Your task to perform on an android device: change notification settings in the gmail app Image 0: 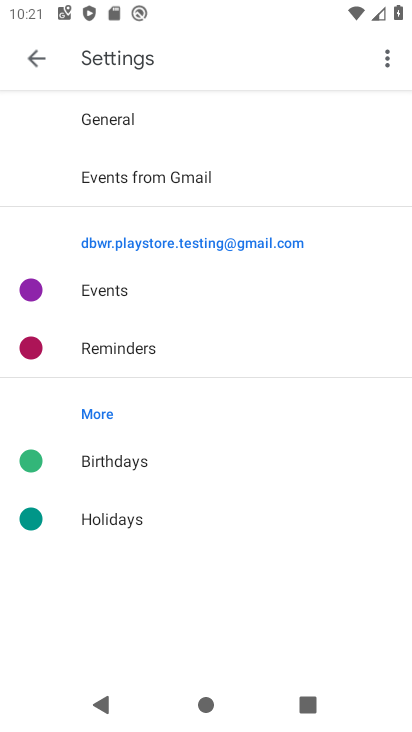
Step 0: press home button
Your task to perform on an android device: change notification settings in the gmail app Image 1: 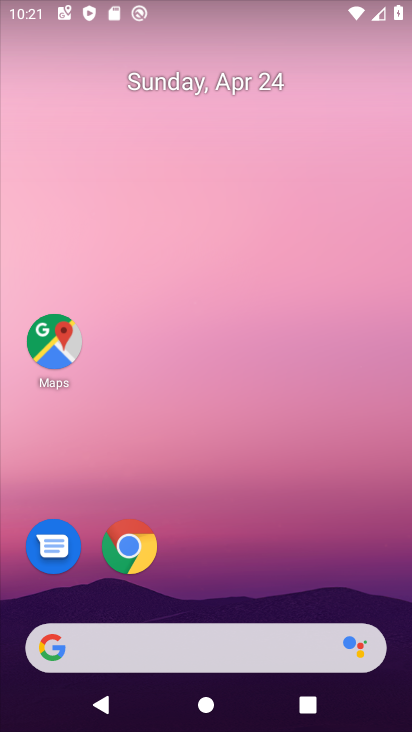
Step 1: drag from (348, 597) to (352, 5)
Your task to perform on an android device: change notification settings in the gmail app Image 2: 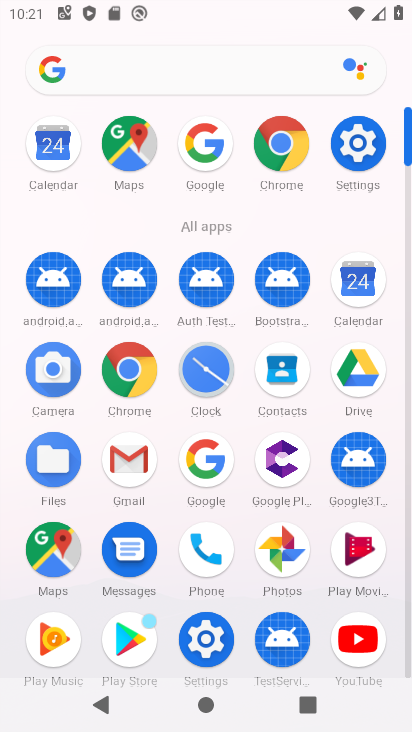
Step 2: click (121, 468)
Your task to perform on an android device: change notification settings in the gmail app Image 3: 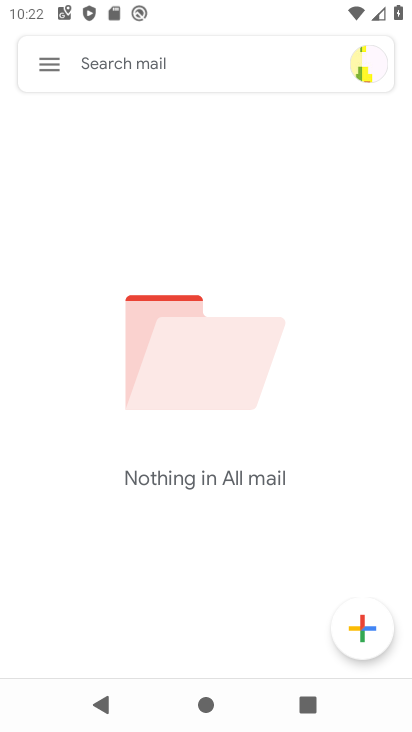
Step 3: click (47, 63)
Your task to perform on an android device: change notification settings in the gmail app Image 4: 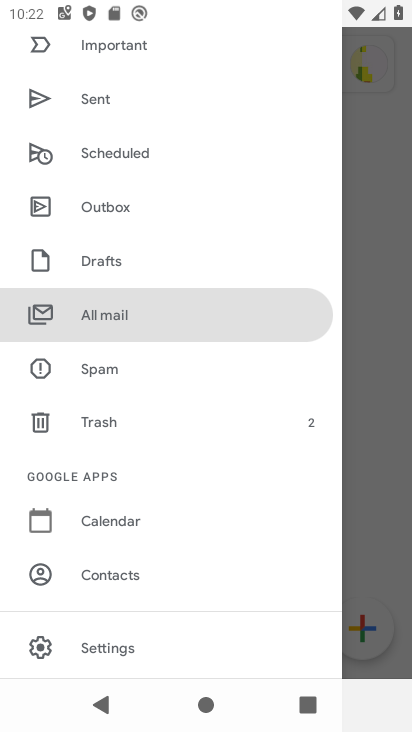
Step 4: click (109, 647)
Your task to perform on an android device: change notification settings in the gmail app Image 5: 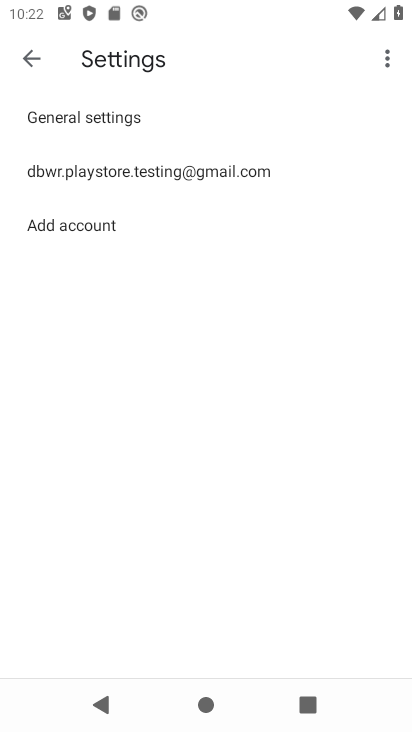
Step 5: click (91, 110)
Your task to perform on an android device: change notification settings in the gmail app Image 6: 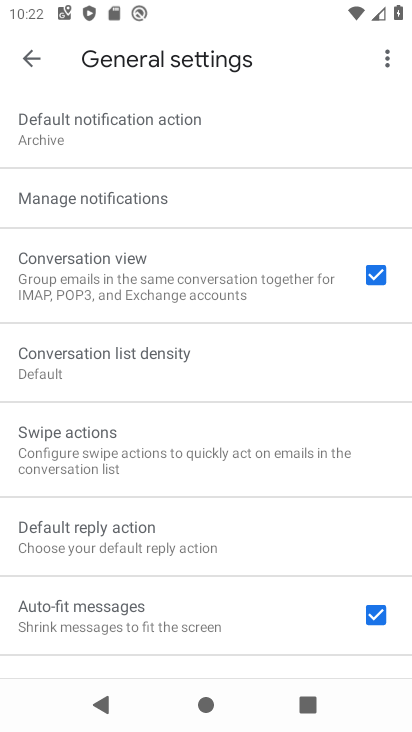
Step 6: click (89, 199)
Your task to perform on an android device: change notification settings in the gmail app Image 7: 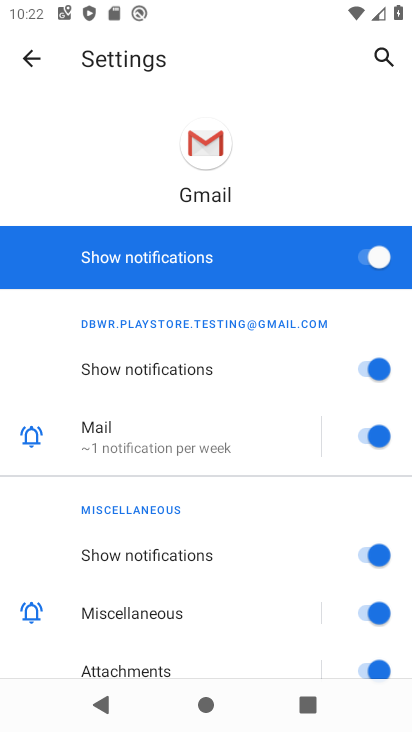
Step 7: click (378, 264)
Your task to perform on an android device: change notification settings in the gmail app Image 8: 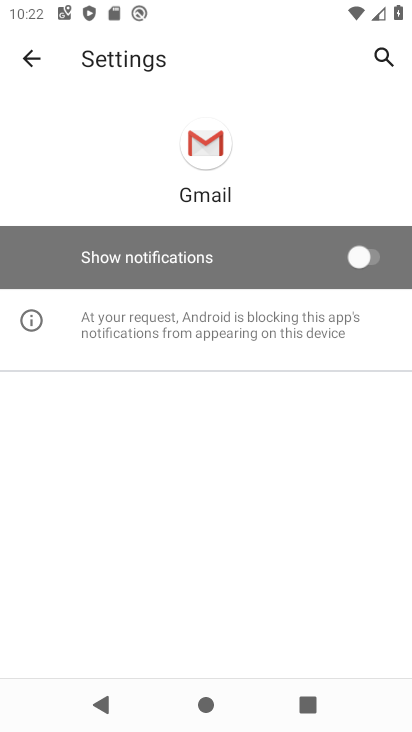
Step 8: task complete